Your task to perform on an android device: Play the last video I watched on Youtube Image 0: 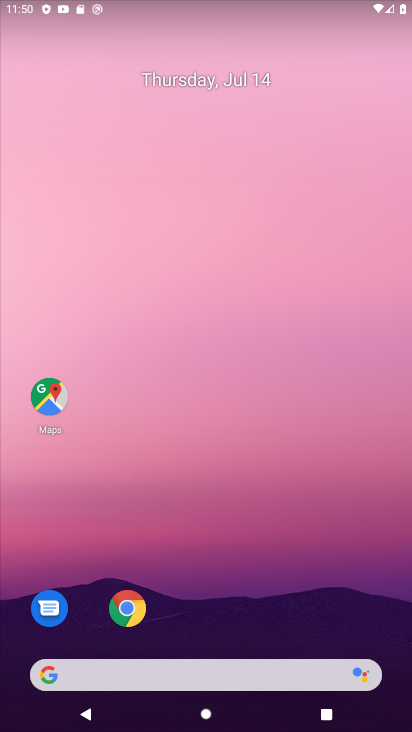
Step 0: drag from (223, 626) to (268, 181)
Your task to perform on an android device: Play the last video I watched on Youtube Image 1: 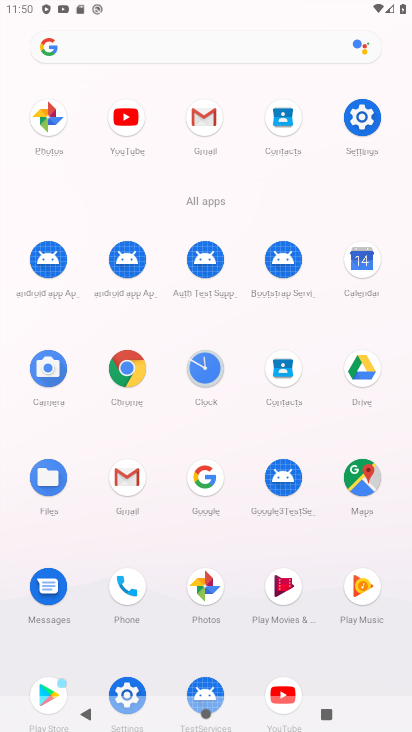
Step 1: click (126, 117)
Your task to perform on an android device: Play the last video I watched on Youtube Image 2: 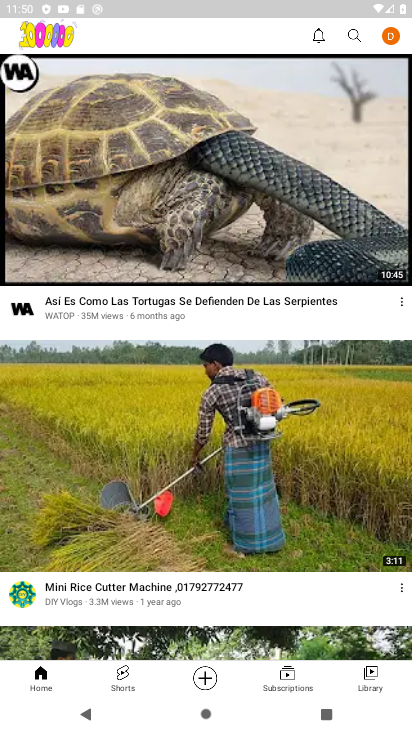
Step 2: click (350, 33)
Your task to perform on an android device: Play the last video I watched on Youtube Image 3: 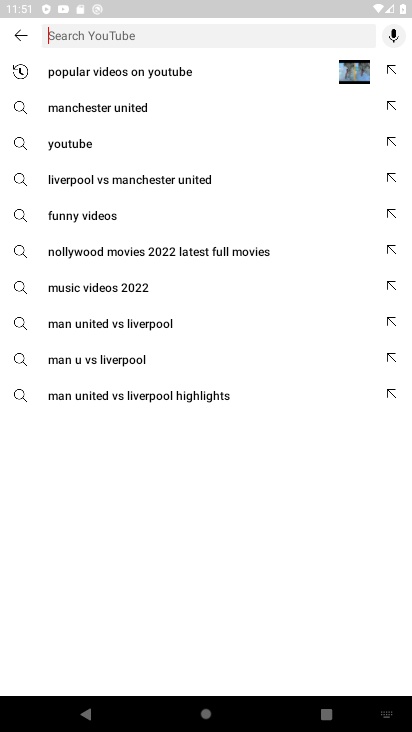
Step 3: click (207, 76)
Your task to perform on an android device: Play the last video I watched on Youtube Image 4: 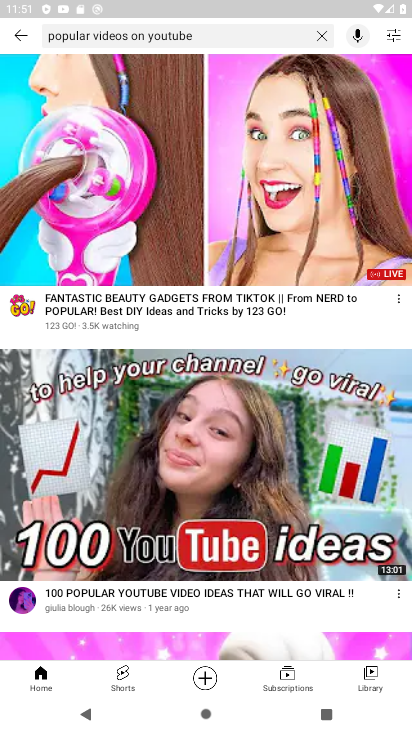
Step 4: click (246, 191)
Your task to perform on an android device: Play the last video I watched on Youtube Image 5: 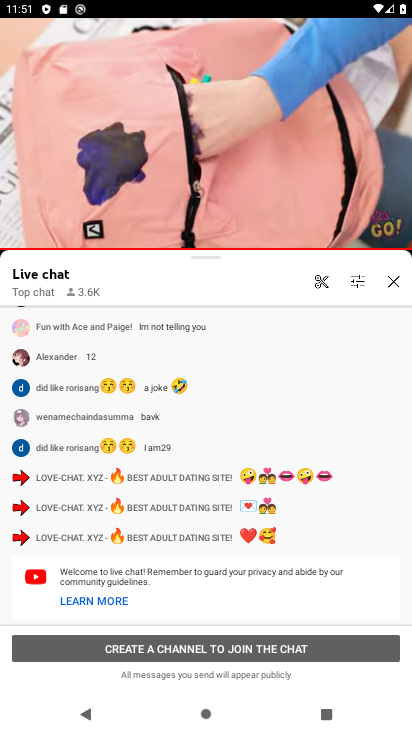
Step 5: task complete